Your task to perform on an android device: turn off sleep mode Image 0: 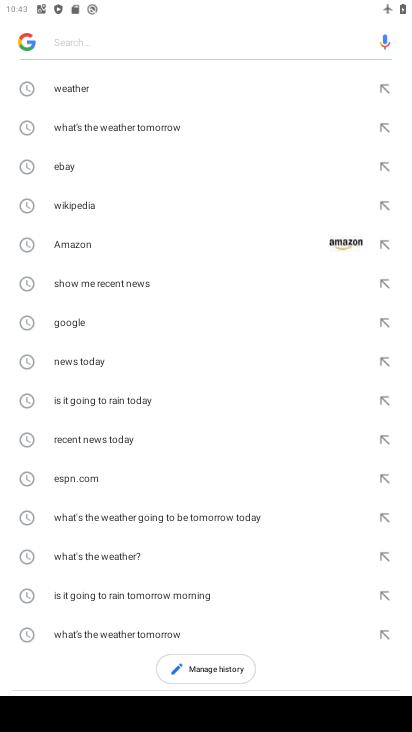
Step 0: press home button
Your task to perform on an android device: turn off sleep mode Image 1: 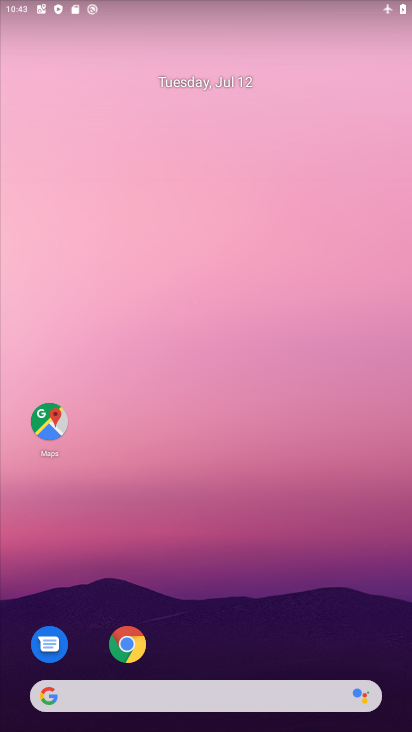
Step 1: drag from (236, 597) to (307, 108)
Your task to perform on an android device: turn off sleep mode Image 2: 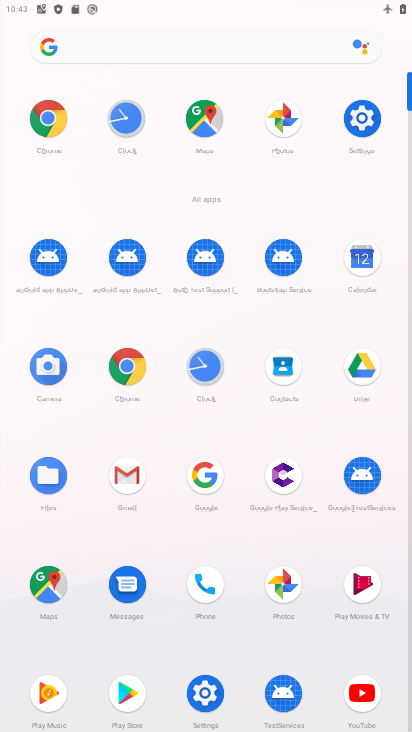
Step 2: click (365, 128)
Your task to perform on an android device: turn off sleep mode Image 3: 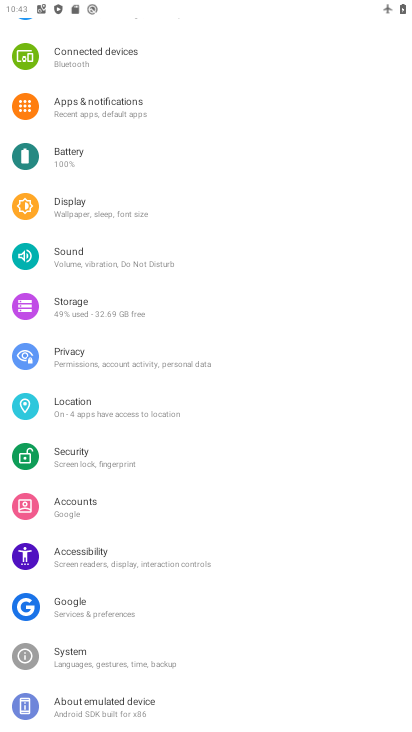
Step 3: click (101, 207)
Your task to perform on an android device: turn off sleep mode Image 4: 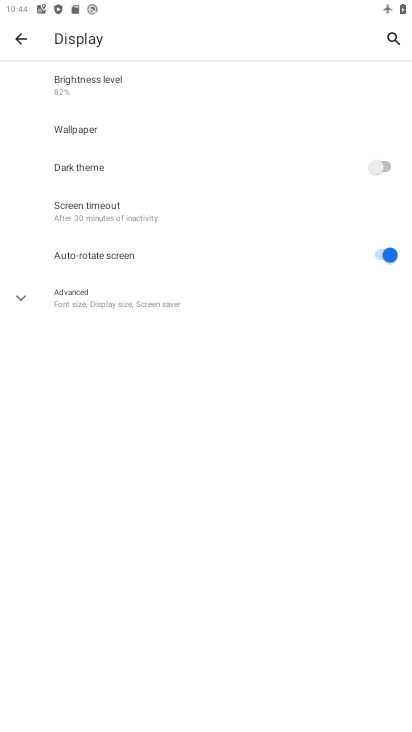
Step 4: click (113, 214)
Your task to perform on an android device: turn off sleep mode Image 5: 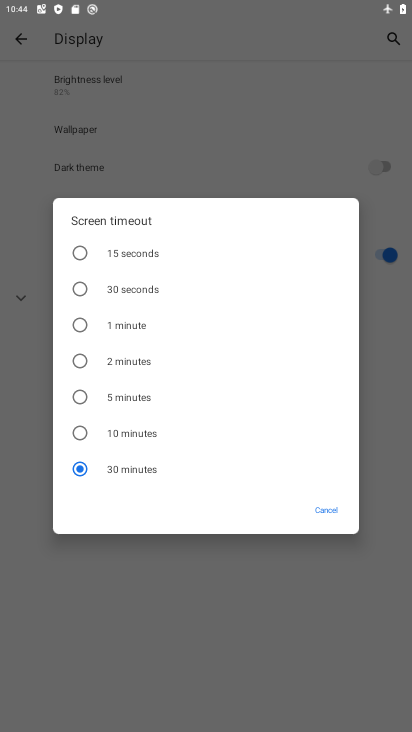
Step 5: task complete